Your task to perform on an android device: choose inbox layout in the gmail app Image 0: 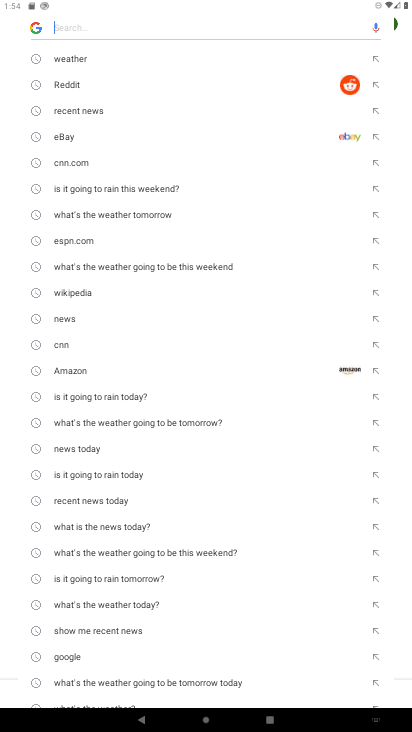
Step 0: press home button
Your task to perform on an android device: choose inbox layout in the gmail app Image 1: 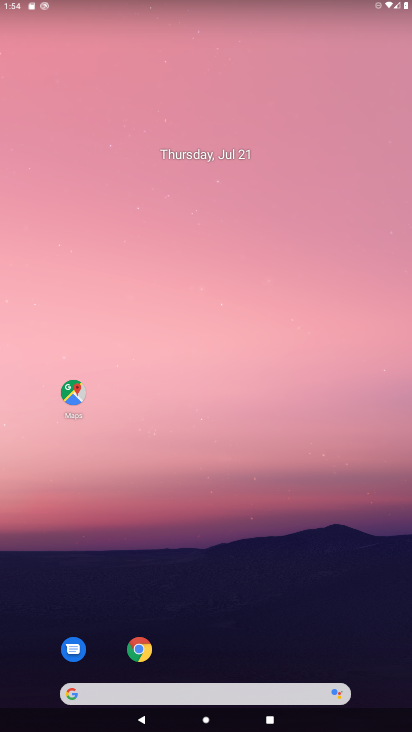
Step 1: drag from (275, 612) to (228, 121)
Your task to perform on an android device: choose inbox layout in the gmail app Image 2: 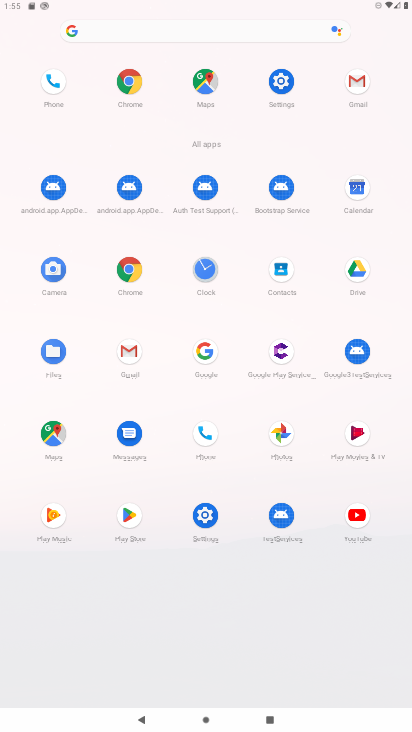
Step 2: click (126, 343)
Your task to perform on an android device: choose inbox layout in the gmail app Image 3: 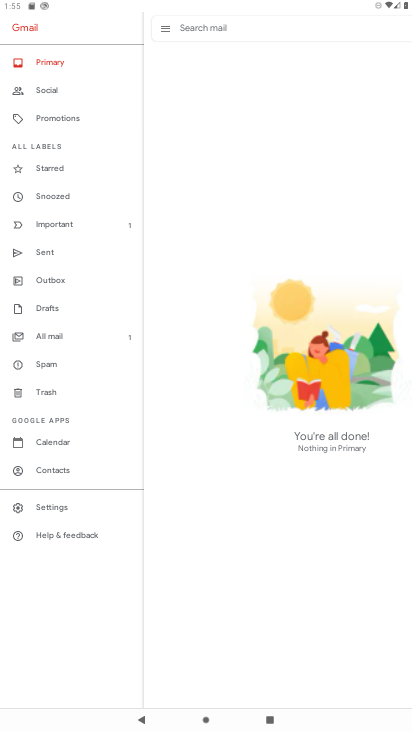
Step 3: click (37, 504)
Your task to perform on an android device: choose inbox layout in the gmail app Image 4: 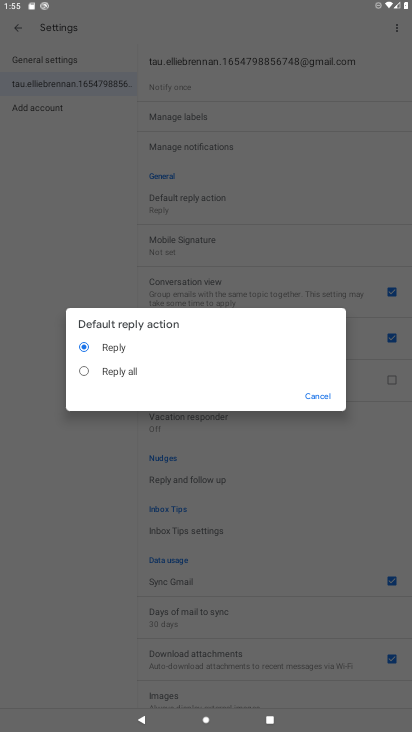
Step 4: click (303, 224)
Your task to perform on an android device: choose inbox layout in the gmail app Image 5: 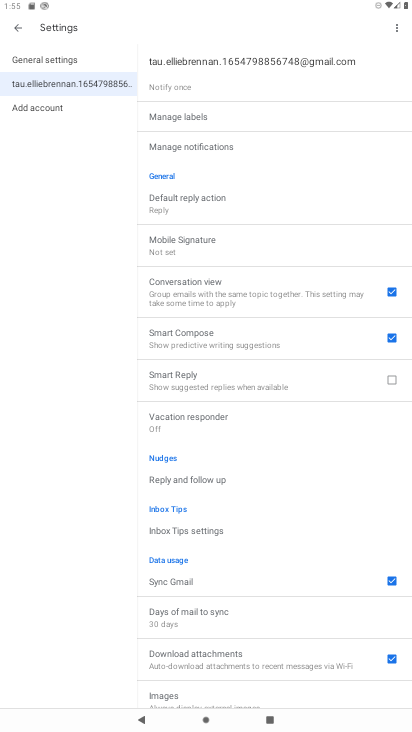
Step 5: click (284, 516)
Your task to perform on an android device: choose inbox layout in the gmail app Image 6: 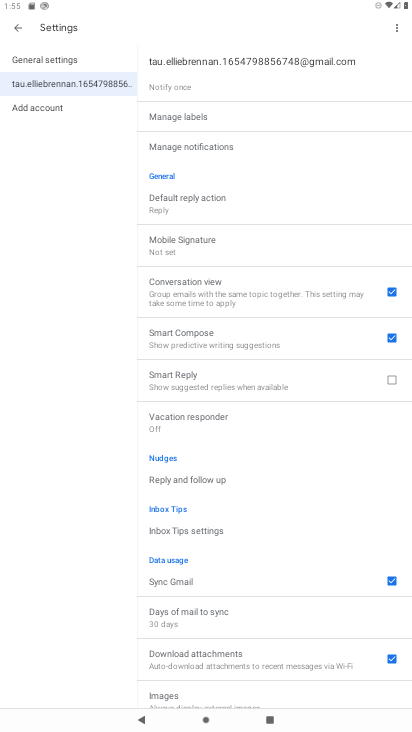
Step 6: click (45, 52)
Your task to perform on an android device: choose inbox layout in the gmail app Image 7: 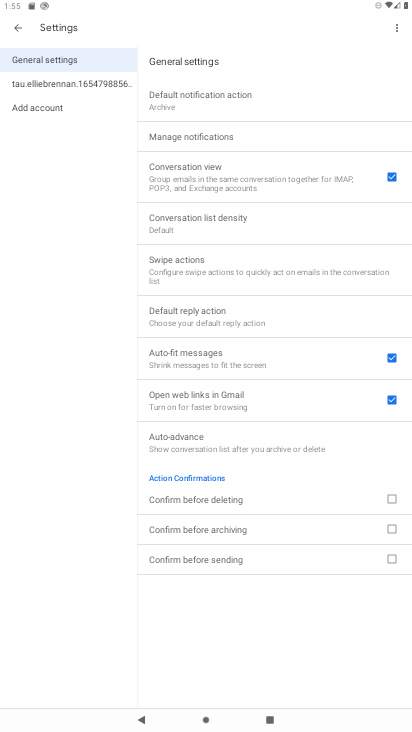
Step 7: click (48, 85)
Your task to perform on an android device: choose inbox layout in the gmail app Image 8: 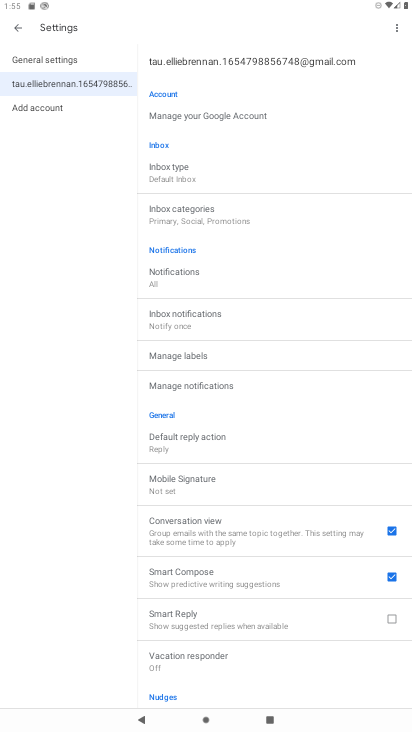
Step 8: click (176, 179)
Your task to perform on an android device: choose inbox layout in the gmail app Image 9: 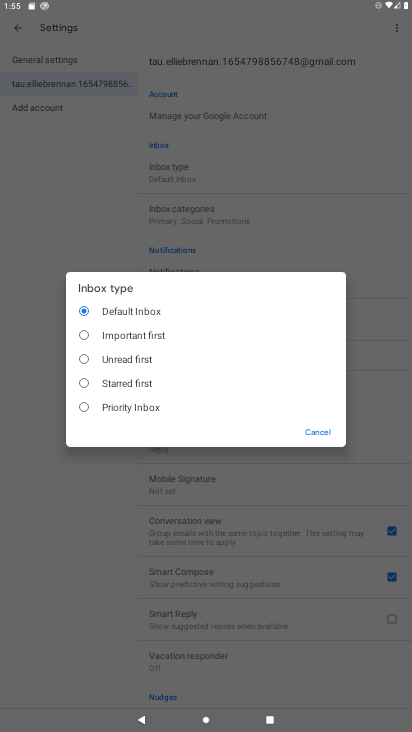
Step 9: click (124, 335)
Your task to perform on an android device: choose inbox layout in the gmail app Image 10: 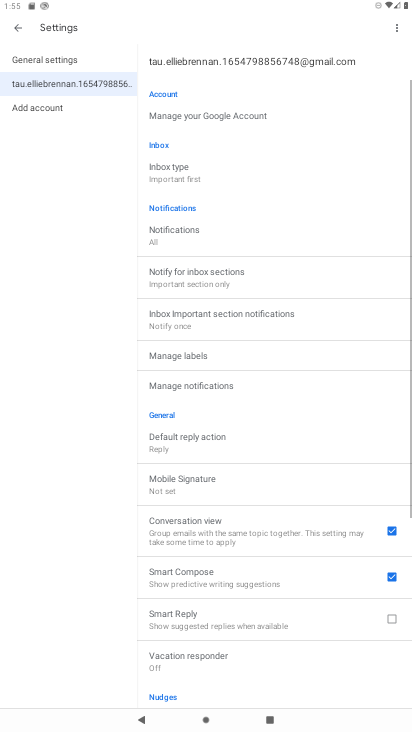
Step 10: task complete